Your task to perform on an android device: set the timer Image 0: 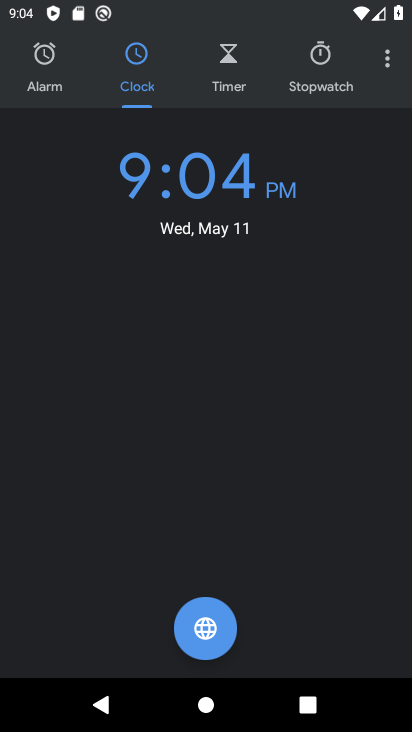
Step 0: press home button
Your task to perform on an android device: set the timer Image 1: 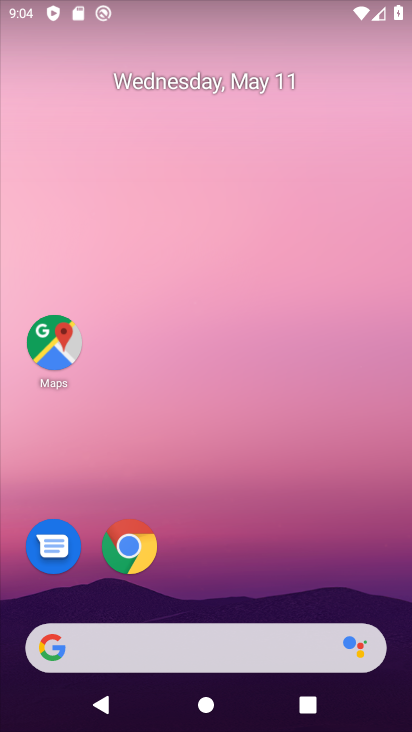
Step 1: drag from (302, 539) to (220, 142)
Your task to perform on an android device: set the timer Image 2: 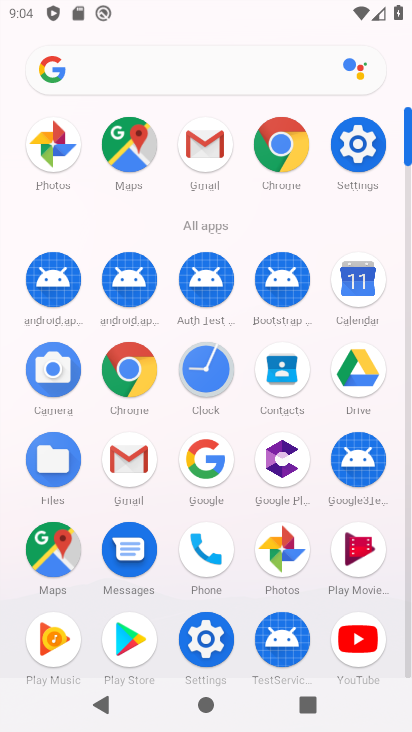
Step 2: click (210, 380)
Your task to perform on an android device: set the timer Image 3: 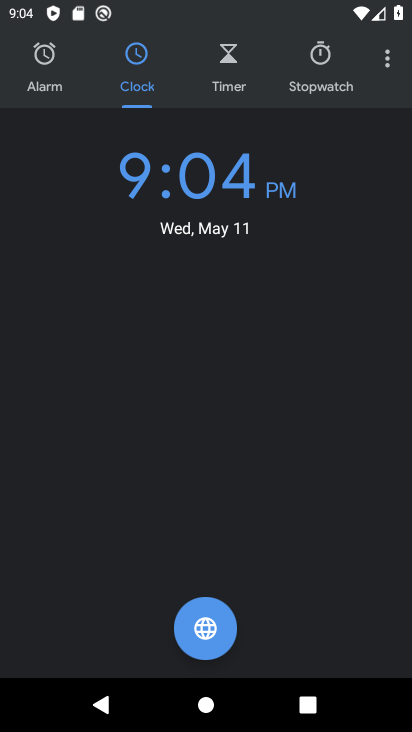
Step 3: click (244, 76)
Your task to perform on an android device: set the timer Image 4: 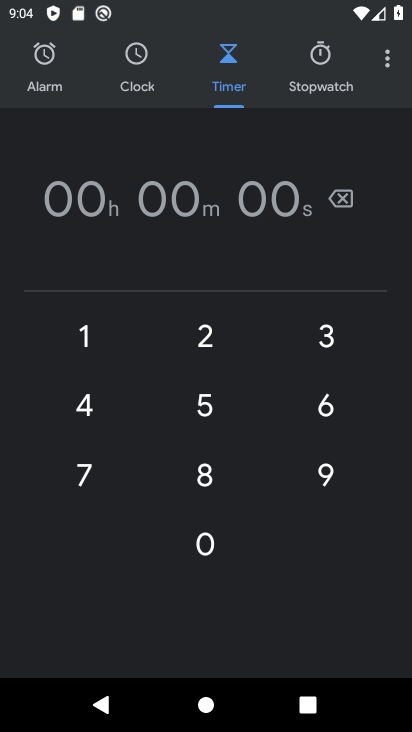
Step 4: click (212, 356)
Your task to perform on an android device: set the timer Image 5: 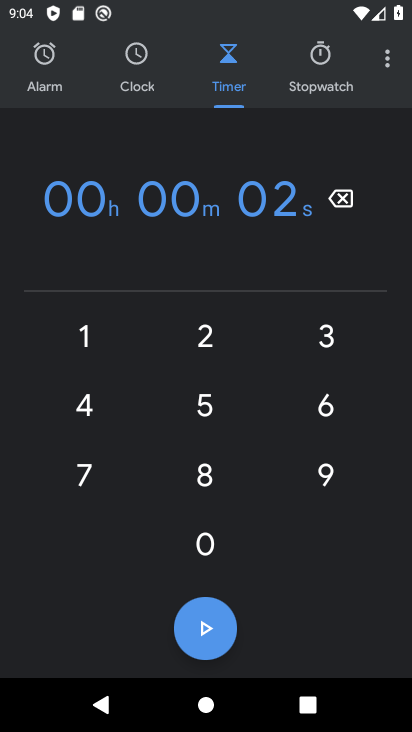
Step 5: click (283, 392)
Your task to perform on an android device: set the timer Image 6: 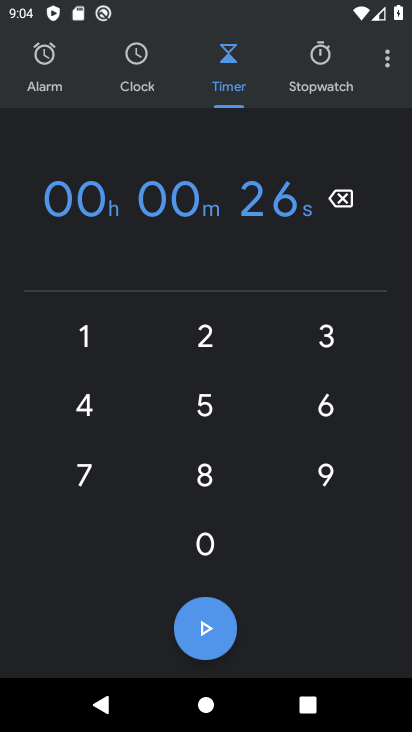
Step 6: click (219, 412)
Your task to perform on an android device: set the timer Image 7: 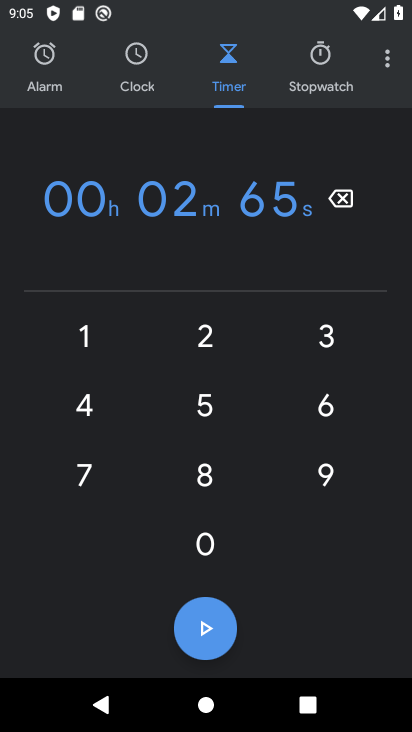
Step 7: task complete